Your task to perform on an android device: What's on my calendar tomorrow? Image 0: 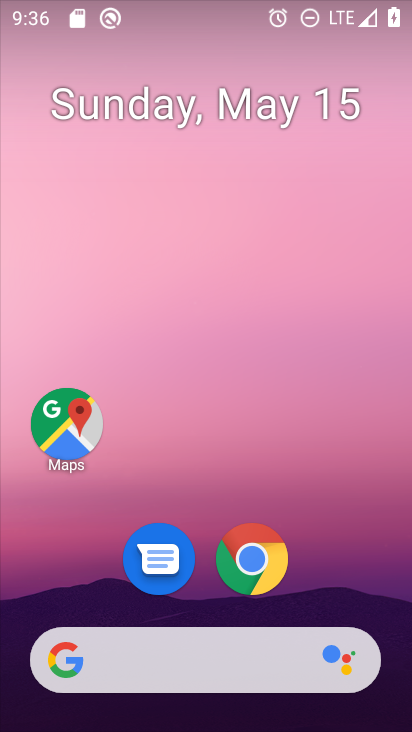
Step 0: drag from (361, 558) to (361, 85)
Your task to perform on an android device: What's on my calendar tomorrow? Image 1: 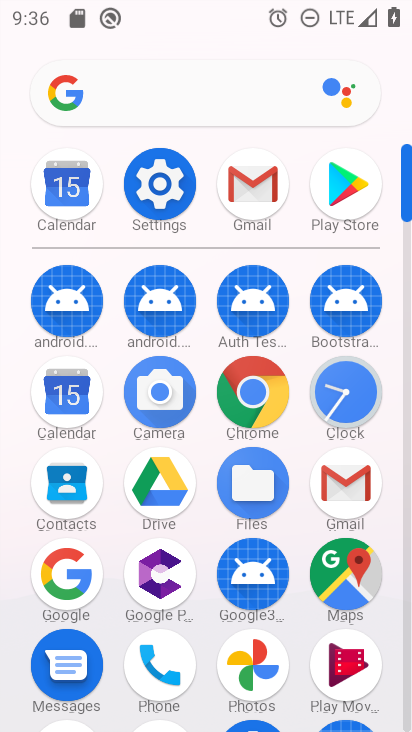
Step 1: click (80, 424)
Your task to perform on an android device: What's on my calendar tomorrow? Image 2: 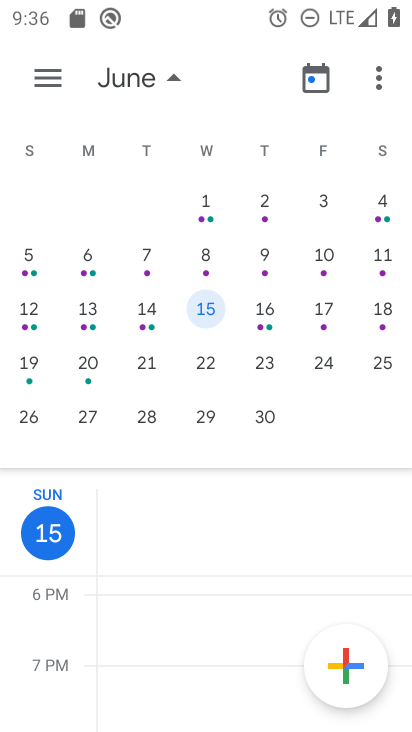
Step 2: click (321, 312)
Your task to perform on an android device: What's on my calendar tomorrow? Image 3: 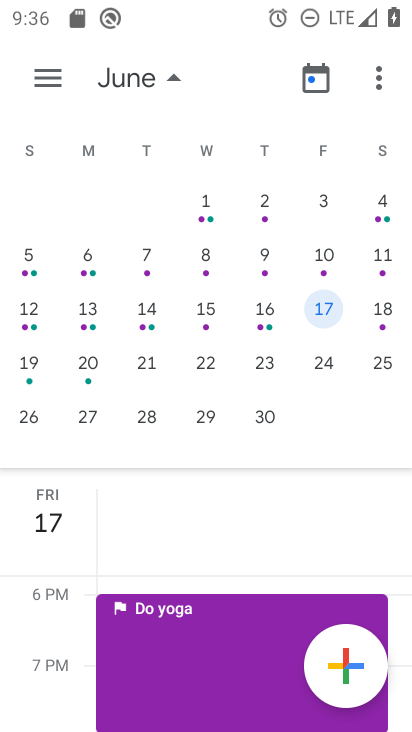
Step 3: task complete